Your task to perform on an android device: check storage Image 0: 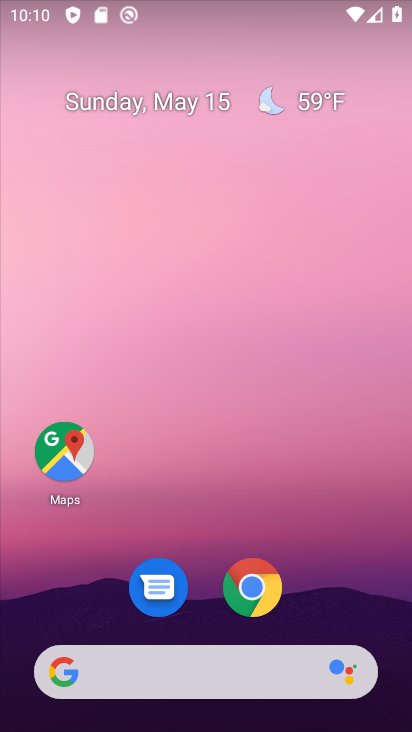
Step 0: drag from (74, 640) to (240, 60)
Your task to perform on an android device: check storage Image 1: 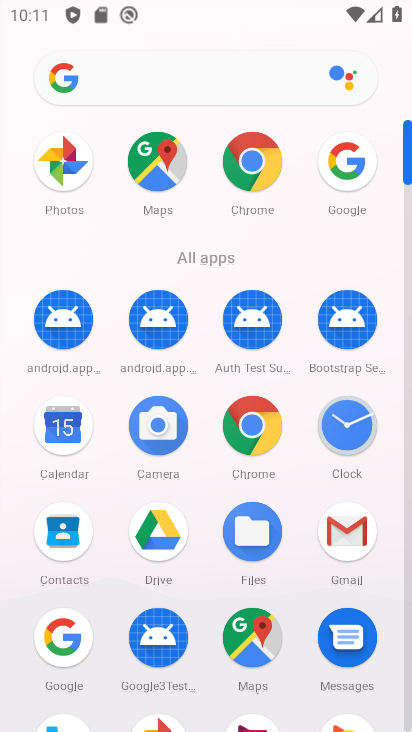
Step 1: drag from (185, 675) to (255, 417)
Your task to perform on an android device: check storage Image 2: 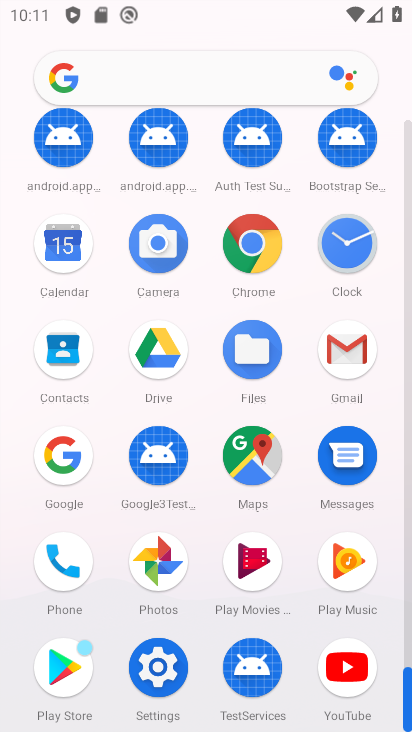
Step 2: click (164, 682)
Your task to perform on an android device: check storage Image 3: 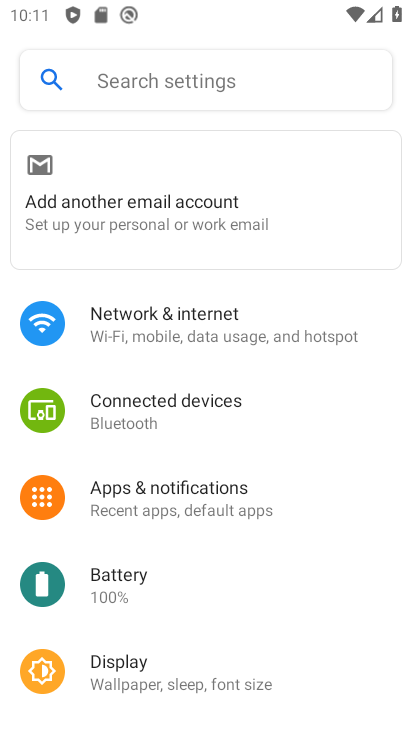
Step 3: drag from (223, 645) to (358, 234)
Your task to perform on an android device: check storage Image 4: 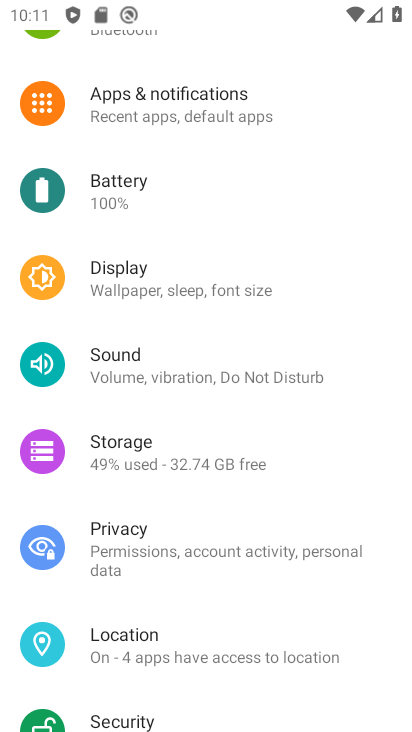
Step 4: drag from (177, 230) to (271, 145)
Your task to perform on an android device: check storage Image 5: 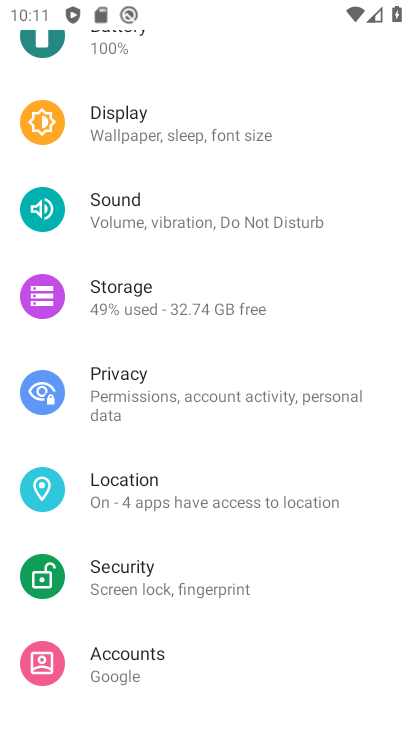
Step 5: click (141, 306)
Your task to perform on an android device: check storage Image 6: 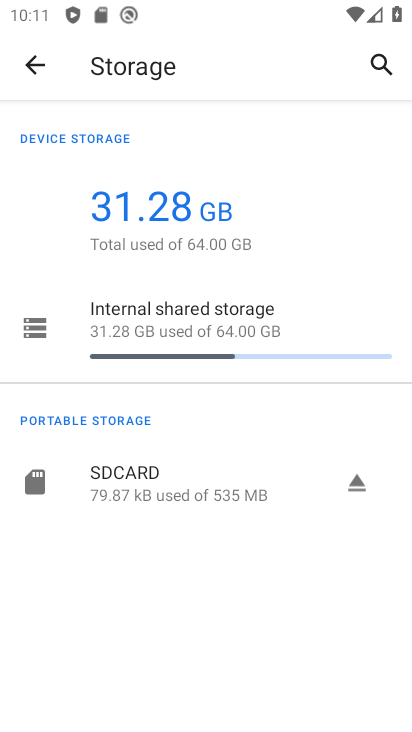
Step 6: task complete